Your task to perform on an android device: Open the stopwatch Image 0: 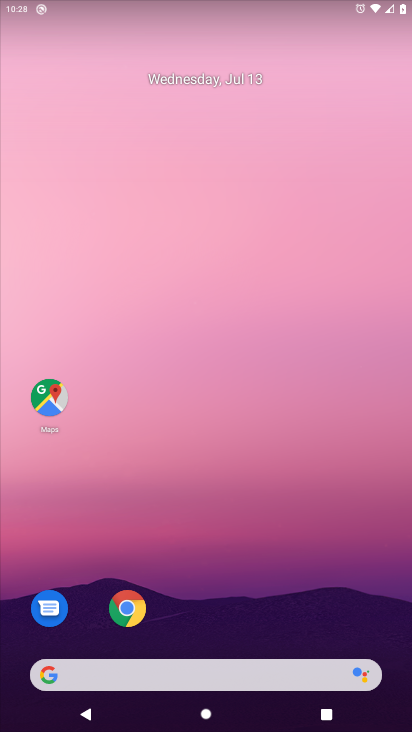
Step 0: drag from (83, 455) to (245, 13)
Your task to perform on an android device: Open the stopwatch Image 1: 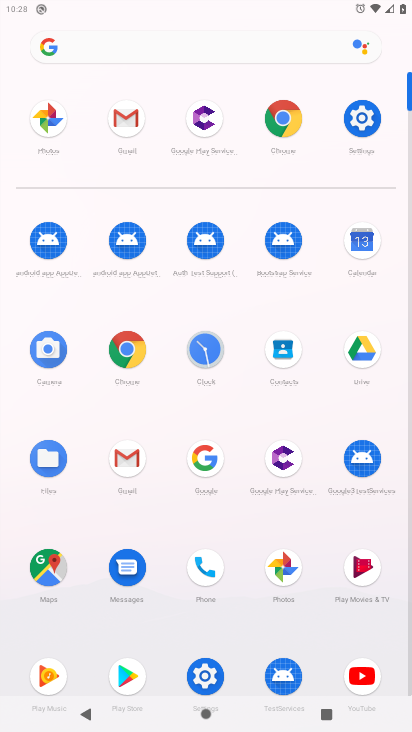
Step 1: click (214, 345)
Your task to perform on an android device: Open the stopwatch Image 2: 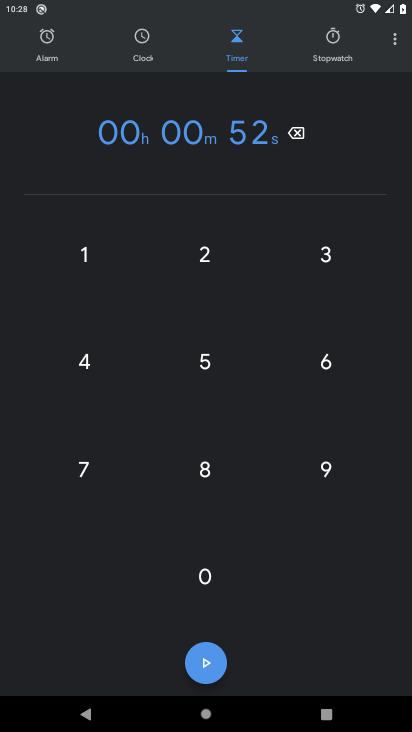
Step 2: click (329, 54)
Your task to perform on an android device: Open the stopwatch Image 3: 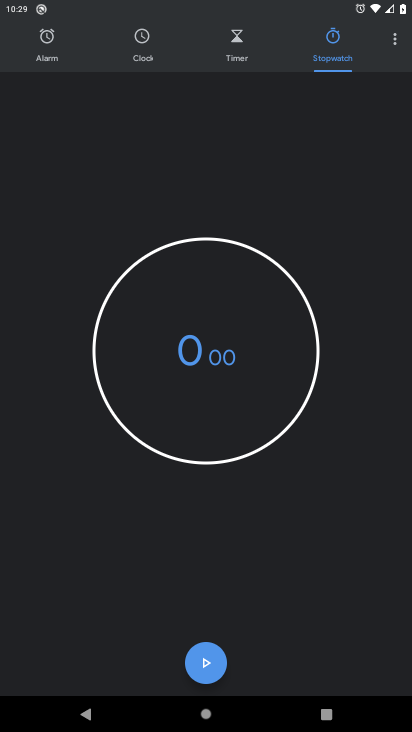
Step 3: task complete